Your task to perform on an android device: Search for "acer nitro" on ebay.com, select the first entry, and add it to the cart. Image 0: 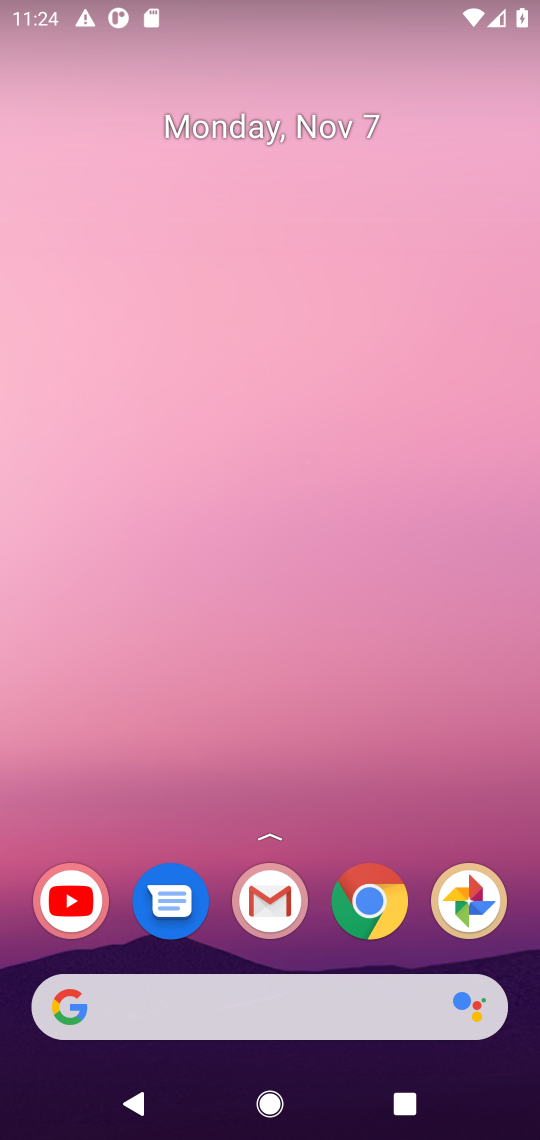
Step 0: click (380, 910)
Your task to perform on an android device: Search for "acer nitro" on ebay.com, select the first entry, and add it to the cart. Image 1: 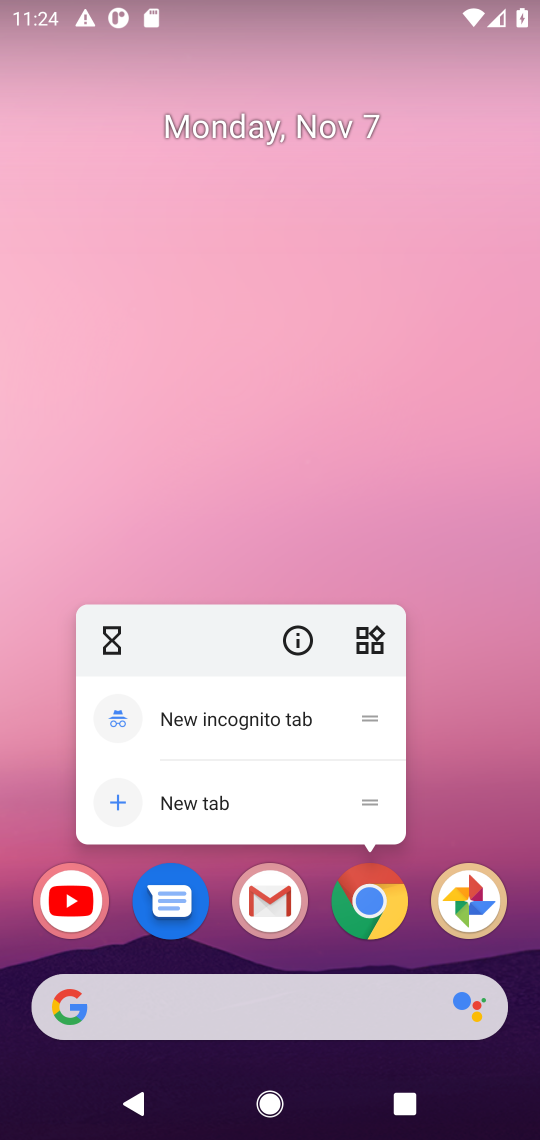
Step 1: click (379, 909)
Your task to perform on an android device: Search for "acer nitro" on ebay.com, select the first entry, and add it to the cart. Image 2: 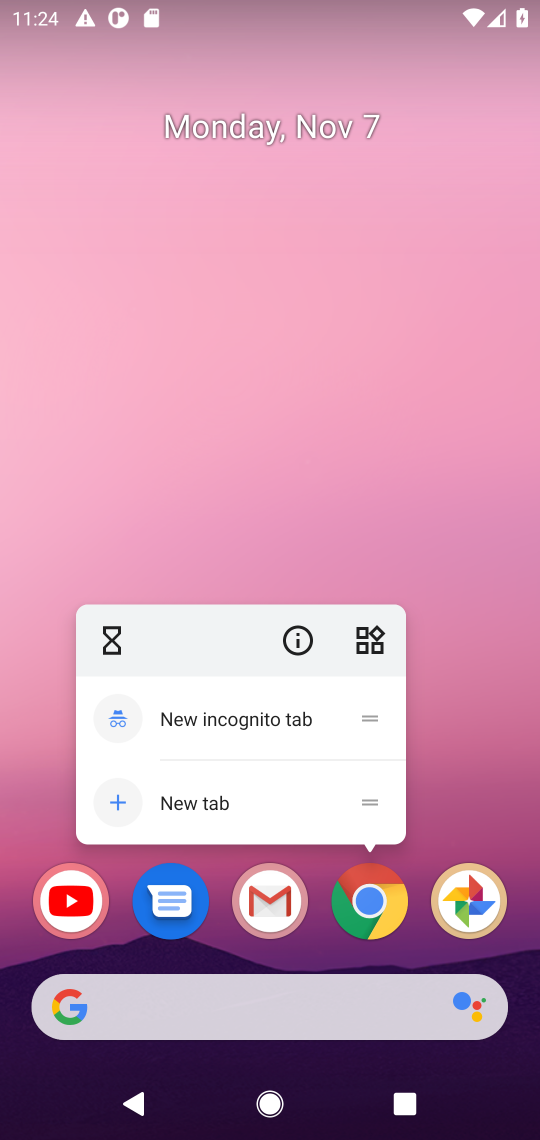
Step 2: click (367, 897)
Your task to perform on an android device: Search for "acer nitro" on ebay.com, select the first entry, and add it to the cart. Image 3: 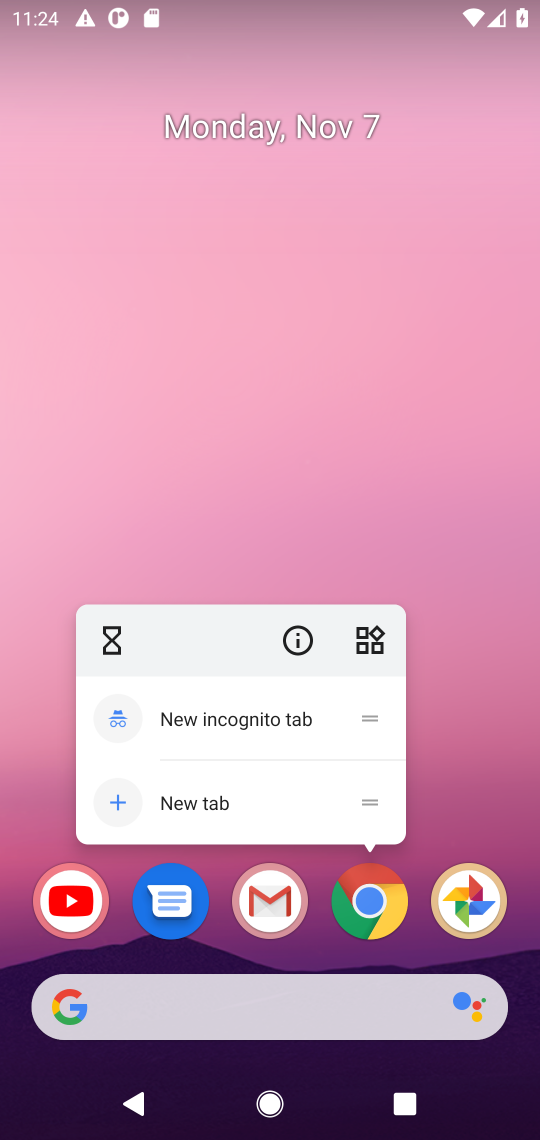
Step 3: click (367, 897)
Your task to perform on an android device: Search for "acer nitro" on ebay.com, select the first entry, and add it to the cart. Image 4: 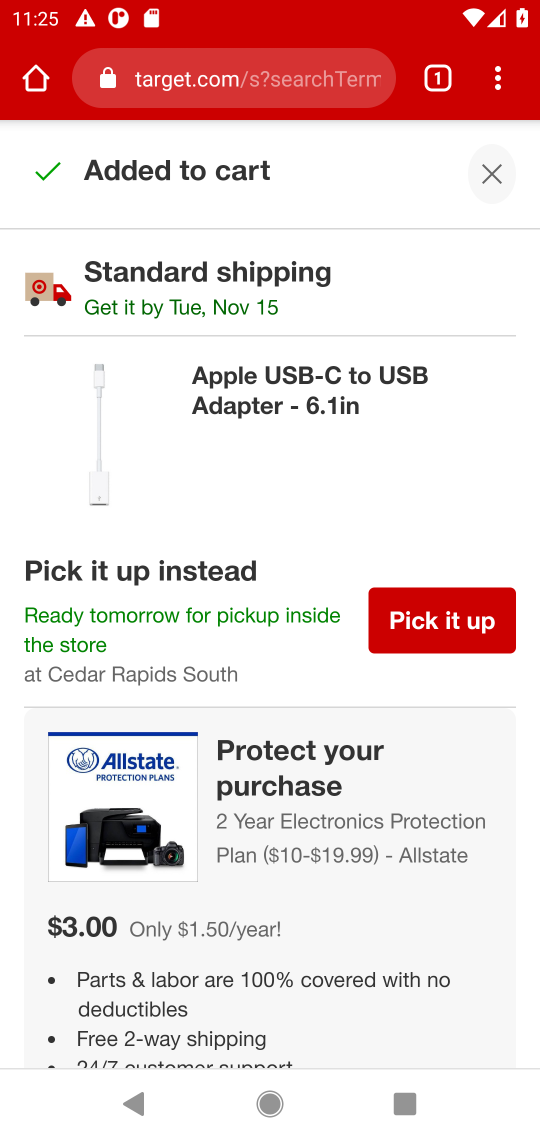
Step 4: click (241, 91)
Your task to perform on an android device: Search for "acer nitro" on ebay.com, select the first entry, and add it to the cart. Image 5: 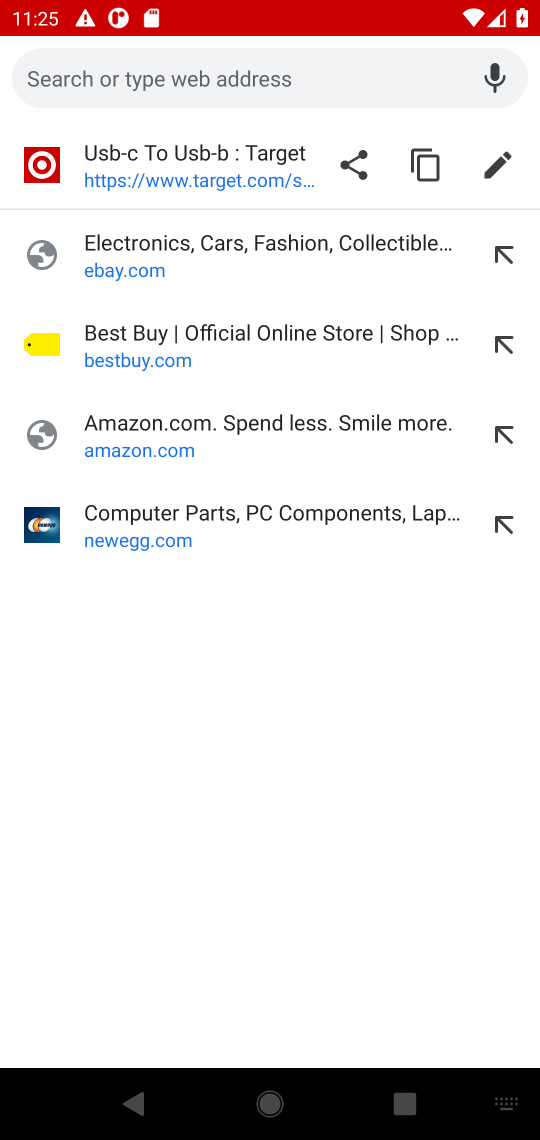
Step 5: type "ebay.com"
Your task to perform on an android device: Search for "acer nitro" on ebay.com, select the first entry, and add it to the cart. Image 6: 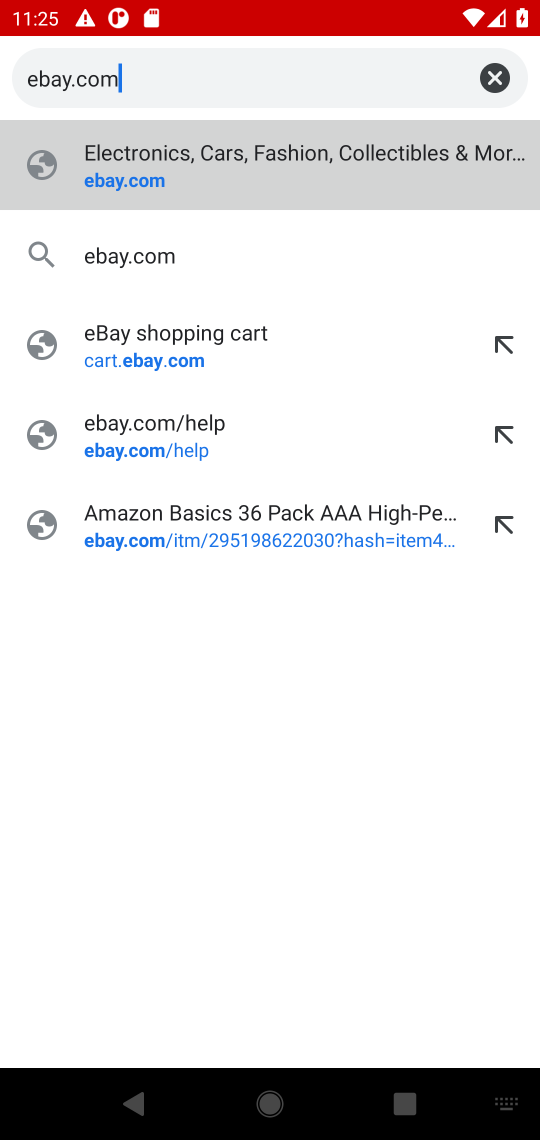
Step 6: click (231, 181)
Your task to perform on an android device: Search for "acer nitro" on ebay.com, select the first entry, and add it to the cart. Image 7: 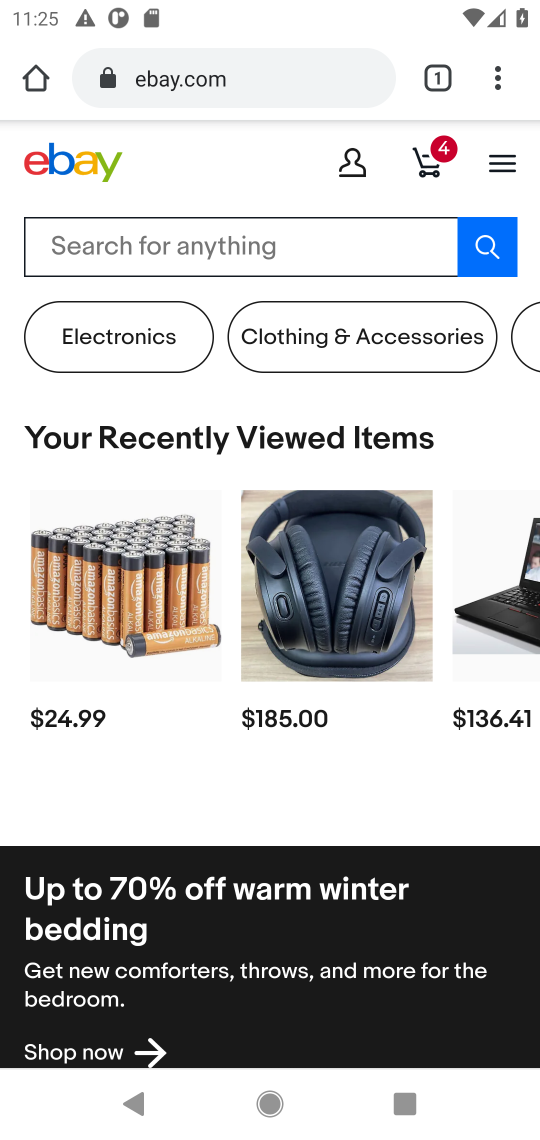
Step 7: click (241, 243)
Your task to perform on an android device: Search for "acer nitro" on ebay.com, select the first entry, and add it to the cart. Image 8: 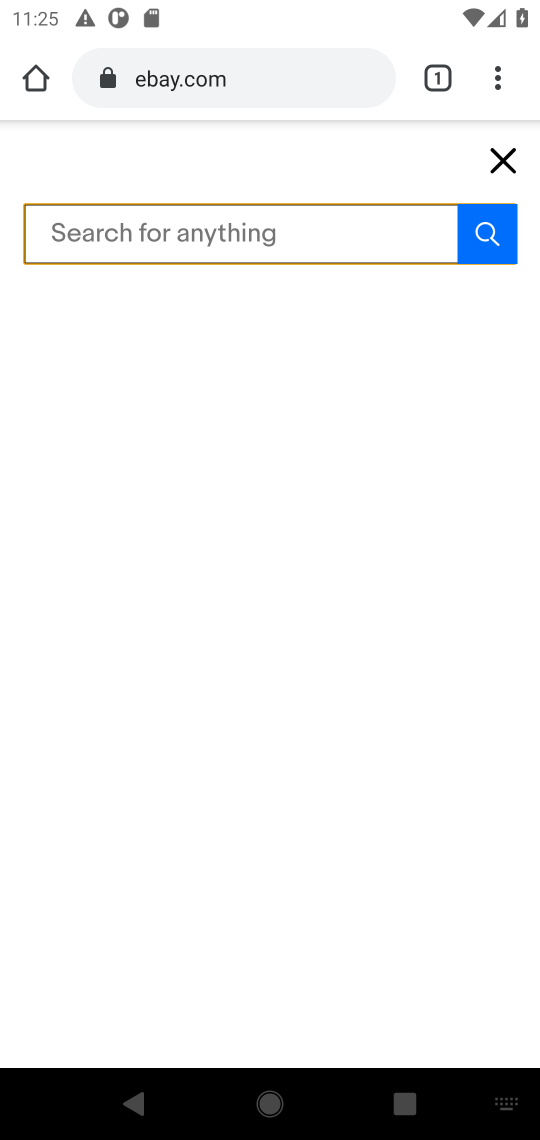
Step 8: type "acer nitro"
Your task to perform on an android device: Search for "acer nitro" on ebay.com, select the first entry, and add it to the cart. Image 9: 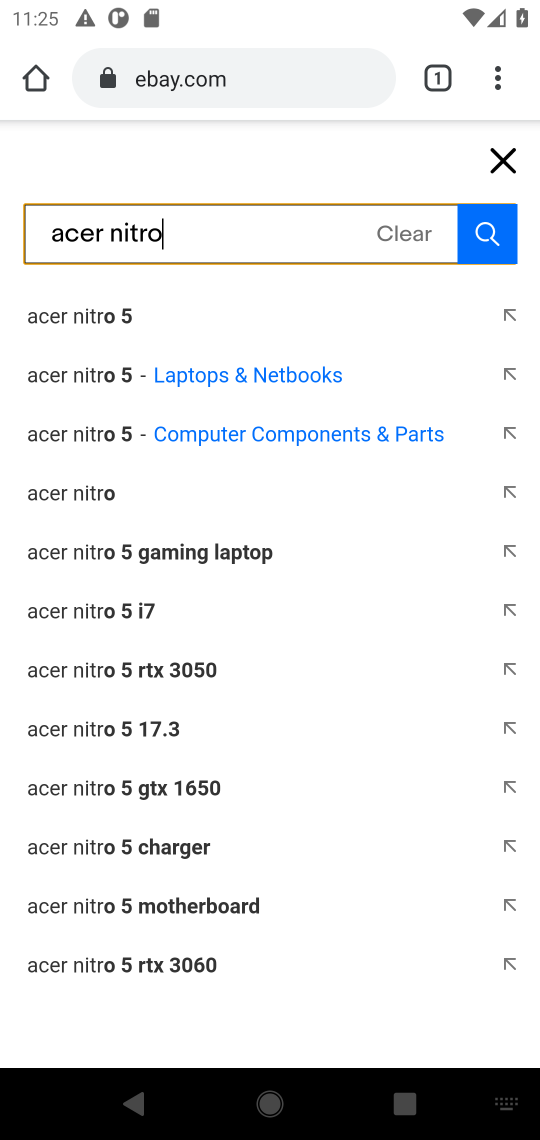
Step 9: press enter
Your task to perform on an android device: Search for "acer nitro" on ebay.com, select the first entry, and add it to the cart. Image 10: 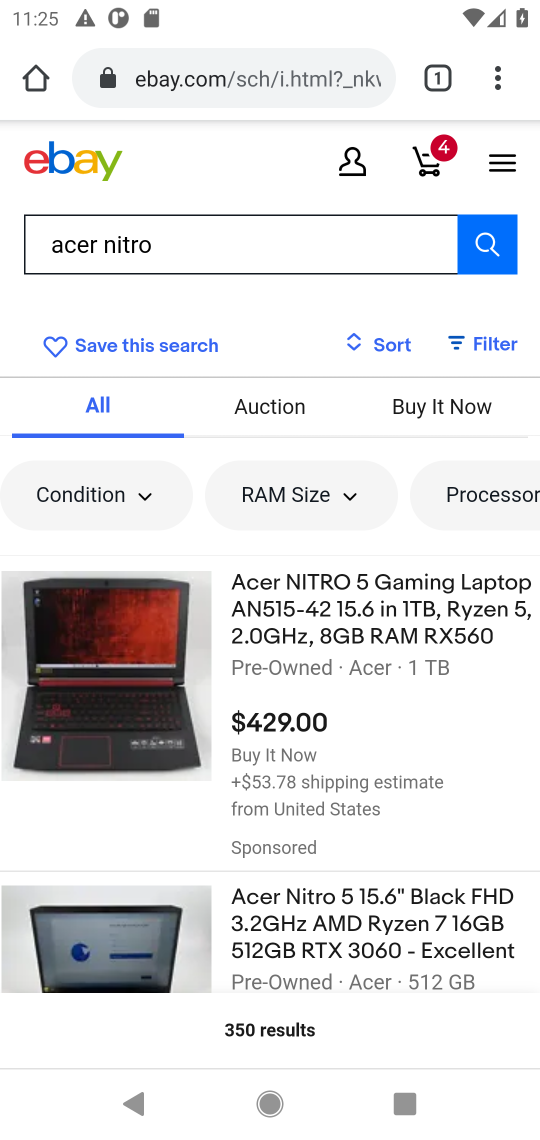
Step 10: click (295, 645)
Your task to perform on an android device: Search for "acer nitro" on ebay.com, select the first entry, and add it to the cart. Image 11: 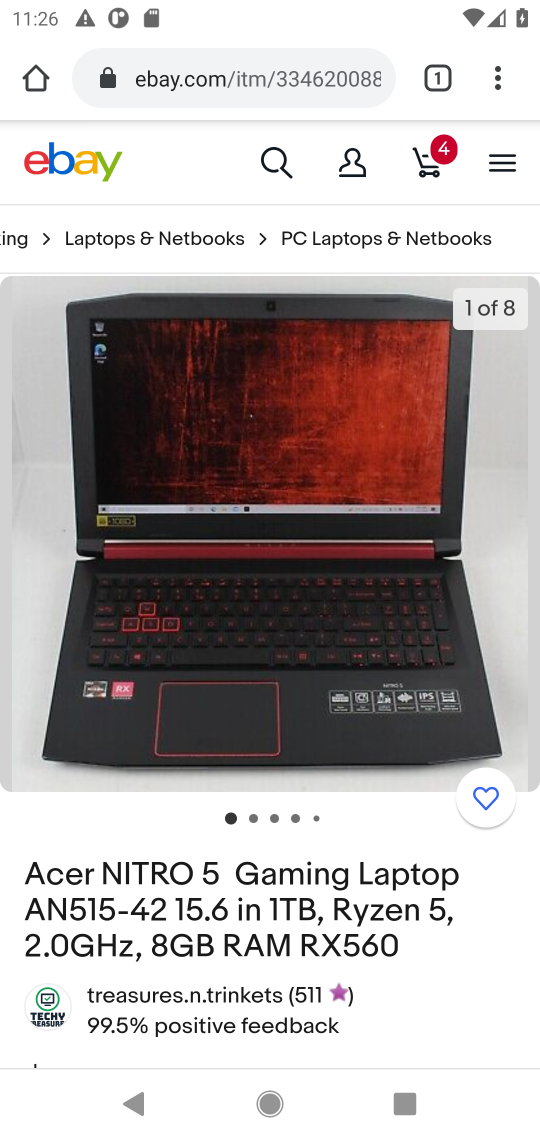
Step 11: click (97, 396)
Your task to perform on an android device: Search for "acer nitro" on ebay.com, select the first entry, and add it to the cart. Image 12: 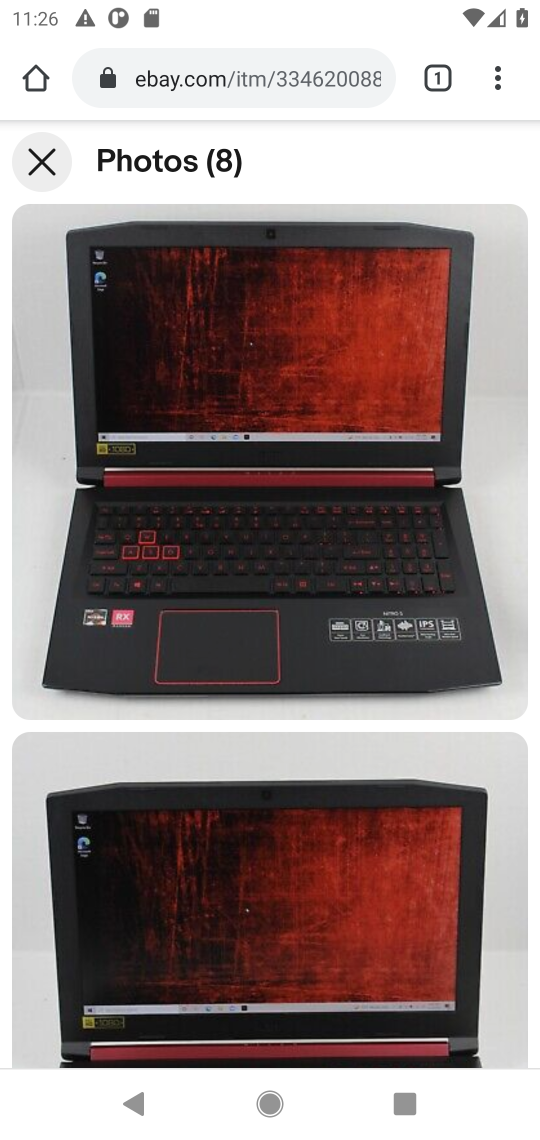
Step 12: task complete